Your task to perform on an android device: Open Yahoo.com Image 0: 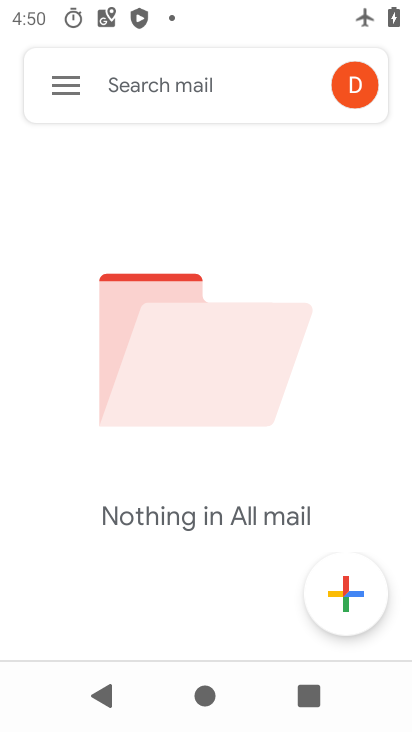
Step 0: press home button
Your task to perform on an android device: Open Yahoo.com Image 1: 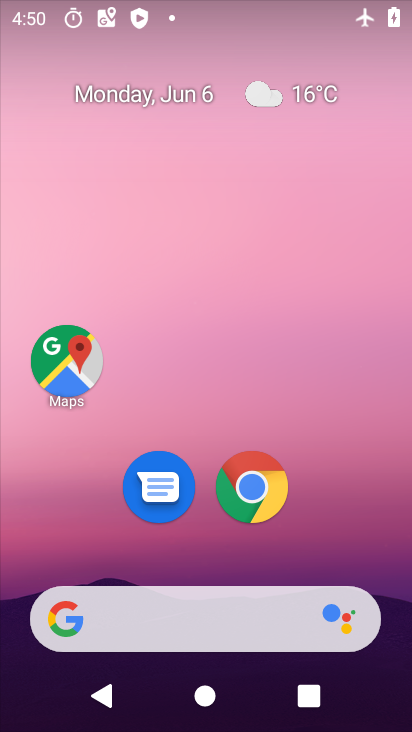
Step 1: click (252, 495)
Your task to perform on an android device: Open Yahoo.com Image 2: 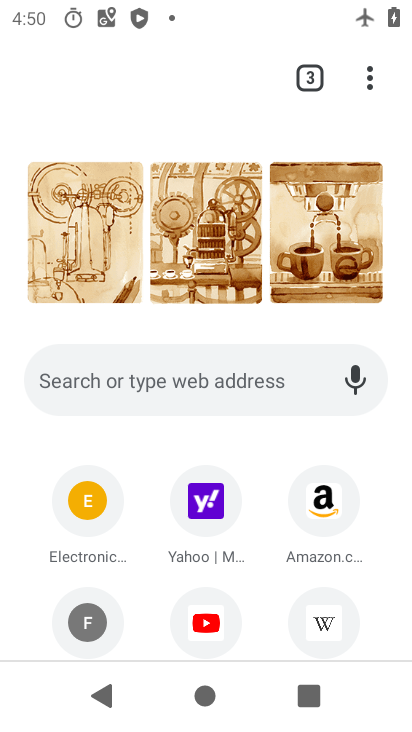
Step 2: click (223, 519)
Your task to perform on an android device: Open Yahoo.com Image 3: 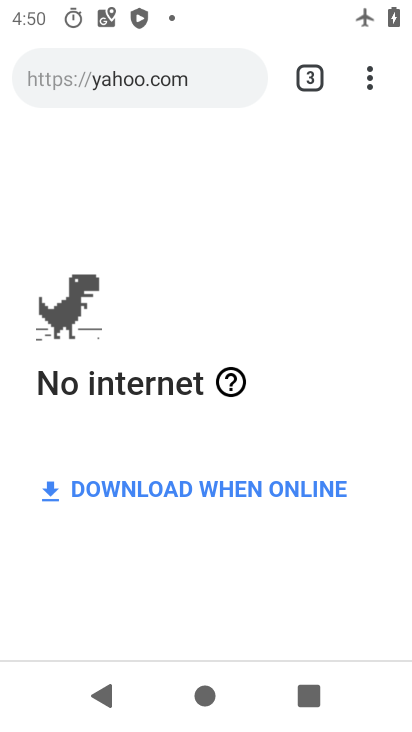
Step 3: task complete